Your task to perform on an android device: Open the calendar app, open the side menu, and click the "Day" option Image 0: 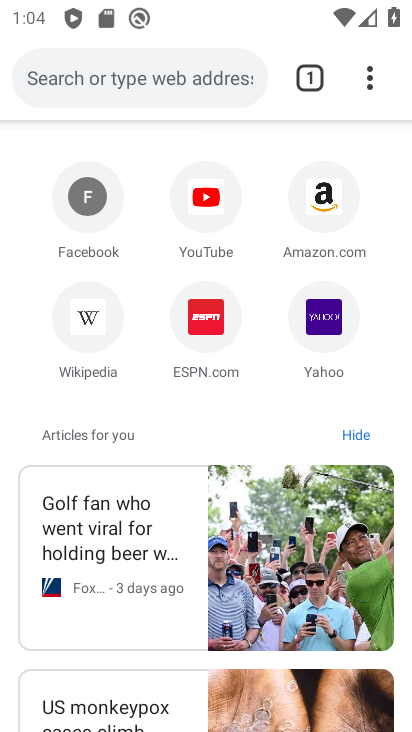
Step 0: press home button
Your task to perform on an android device: Open the calendar app, open the side menu, and click the "Day" option Image 1: 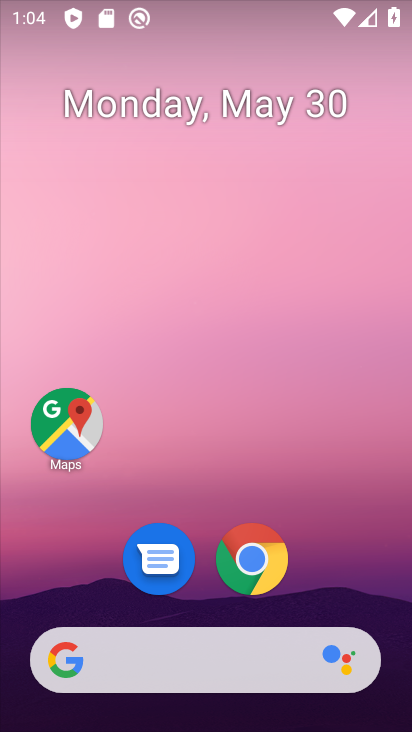
Step 1: drag from (93, 731) to (132, 12)
Your task to perform on an android device: Open the calendar app, open the side menu, and click the "Day" option Image 2: 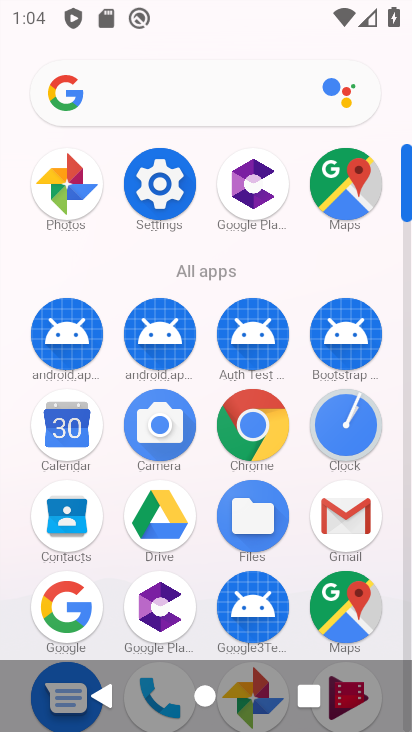
Step 2: click (74, 445)
Your task to perform on an android device: Open the calendar app, open the side menu, and click the "Day" option Image 3: 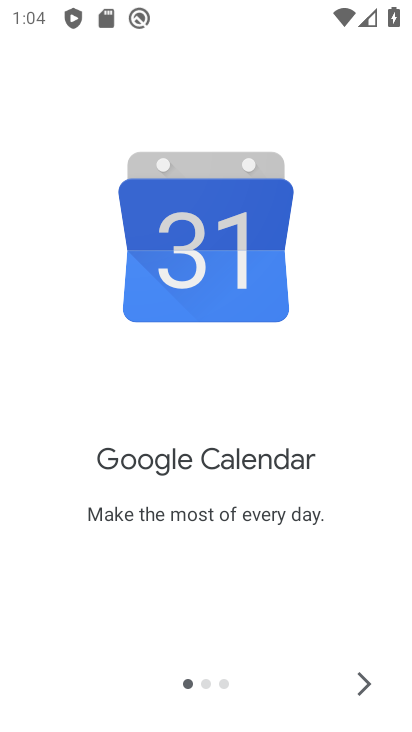
Step 3: click (384, 684)
Your task to perform on an android device: Open the calendar app, open the side menu, and click the "Day" option Image 4: 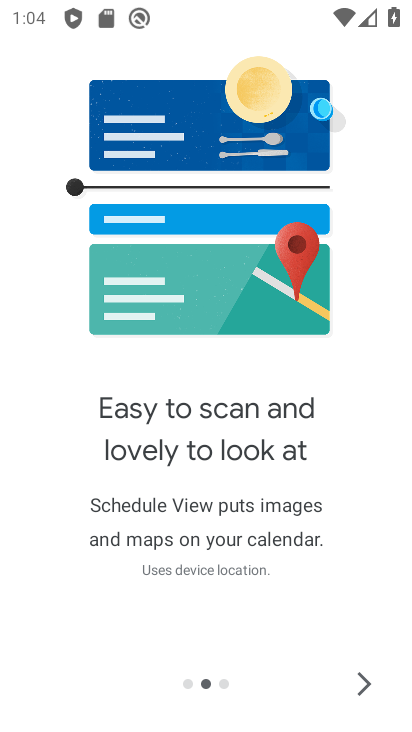
Step 4: click (386, 685)
Your task to perform on an android device: Open the calendar app, open the side menu, and click the "Day" option Image 5: 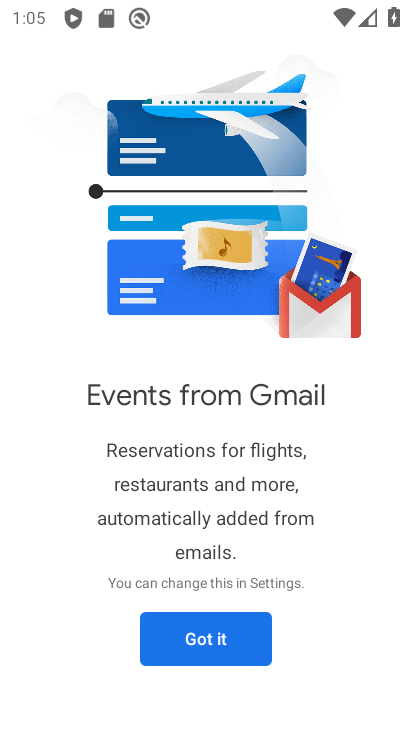
Step 5: click (212, 637)
Your task to perform on an android device: Open the calendar app, open the side menu, and click the "Day" option Image 6: 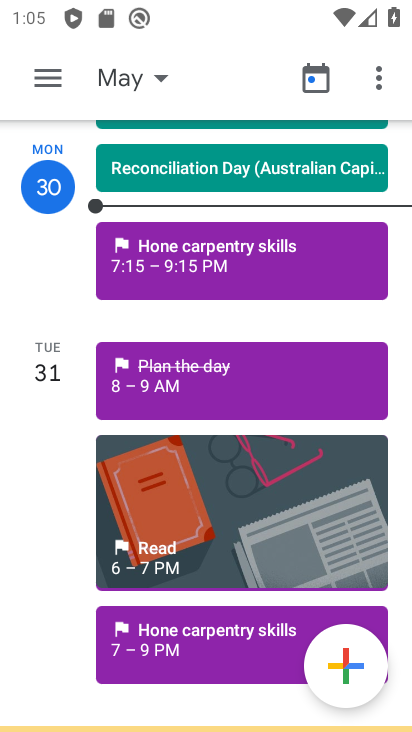
Step 6: click (39, 74)
Your task to perform on an android device: Open the calendar app, open the side menu, and click the "Day" option Image 7: 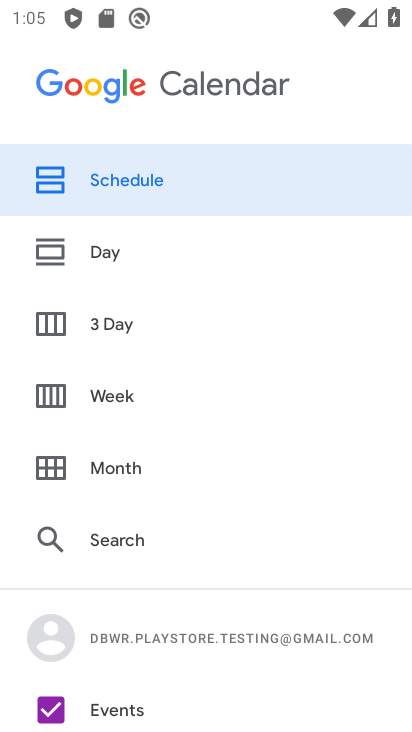
Step 7: click (112, 260)
Your task to perform on an android device: Open the calendar app, open the side menu, and click the "Day" option Image 8: 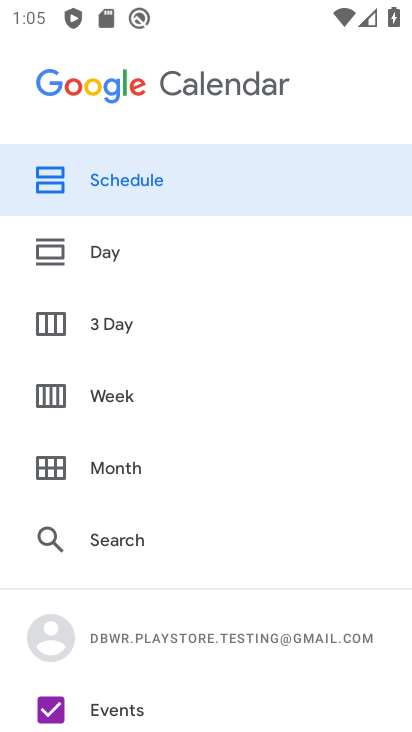
Step 8: click (102, 248)
Your task to perform on an android device: Open the calendar app, open the side menu, and click the "Day" option Image 9: 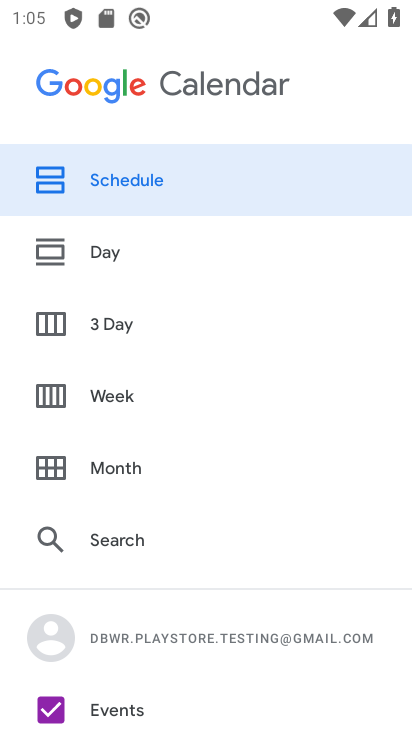
Step 9: click (55, 251)
Your task to perform on an android device: Open the calendar app, open the side menu, and click the "Day" option Image 10: 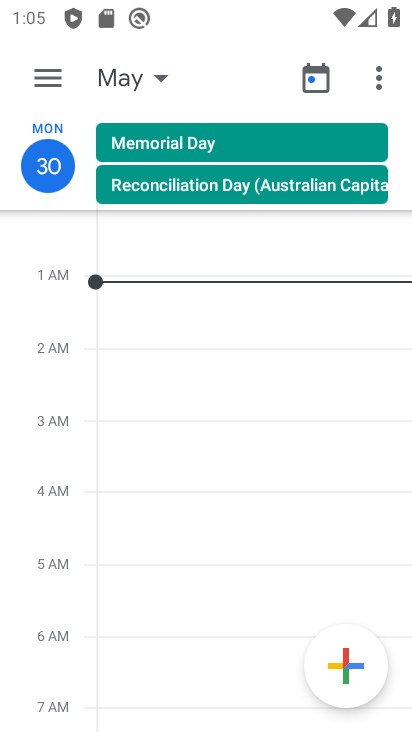
Step 10: task complete